Your task to perform on an android device: allow cookies in the chrome app Image 0: 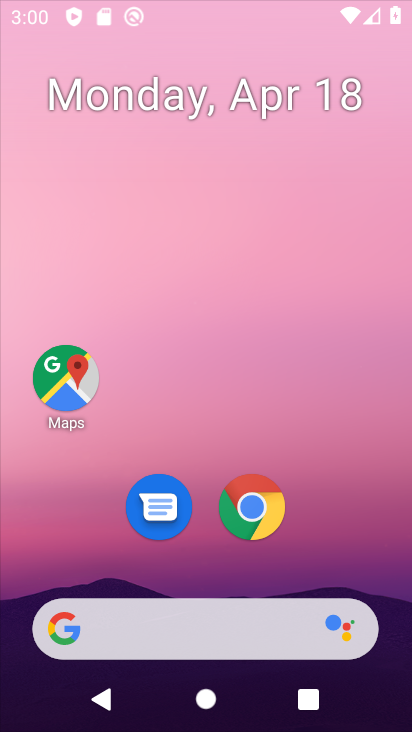
Step 0: drag from (232, 233) to (292, 0)
Your task to perform on an android device: allow cookies in the chrome app Image 1: 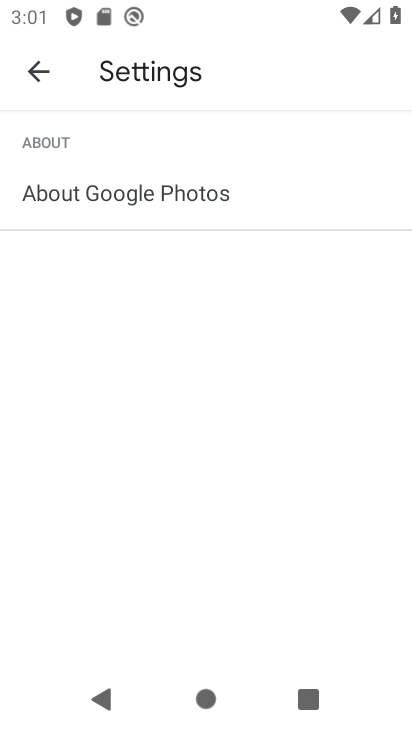
Step 1: press home button
Your task to perform on an android device: allow cookies in the chrome app Image 2: 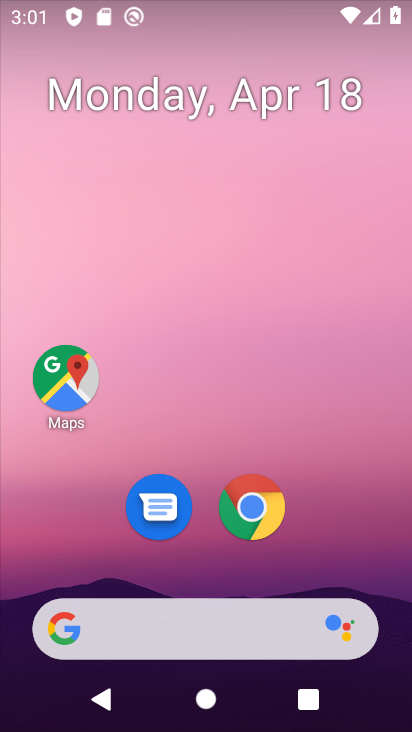
Step 2: drag from (200, 481) to (235, 41)
Your task to perform on an android device: allow cookies in the chrome app Image 3: 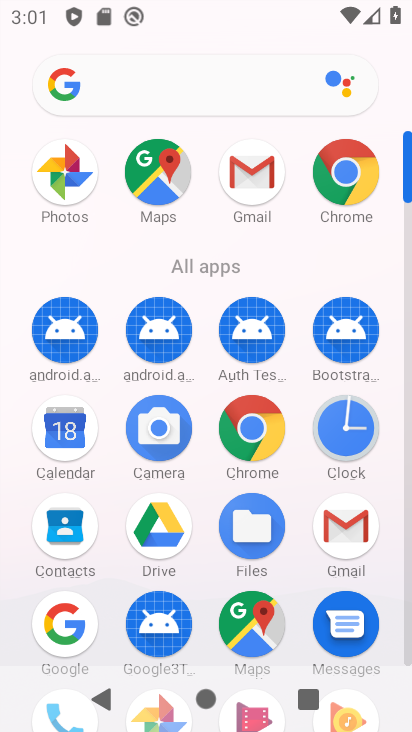
Step 3: click (347, 428)
Your task to perform on an android device: allow cookies in the chrome app Image 4: 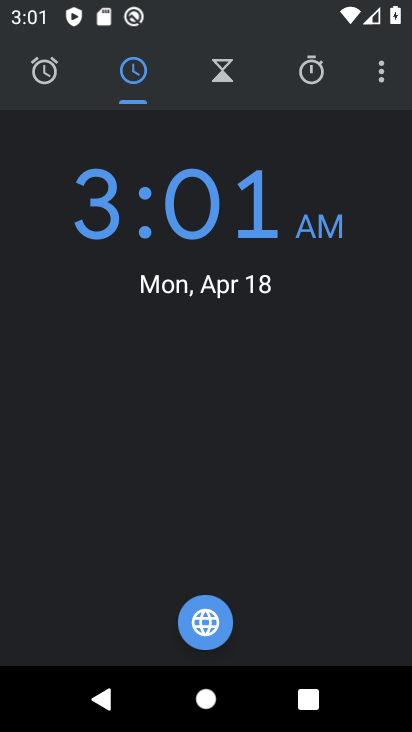
Step 4: click (45, 90)
Your task to perform on an android device: allow cookies in the chrome app Image 5: 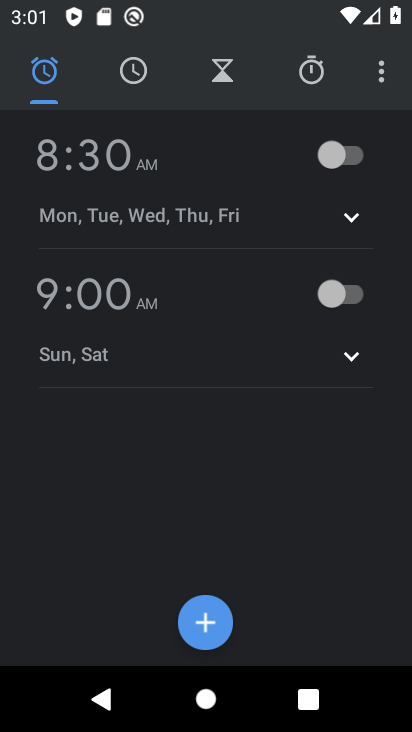
Step 5: click (199, 623)
Your task to perform on an android device: allow cookies in the chrome app Image 6: 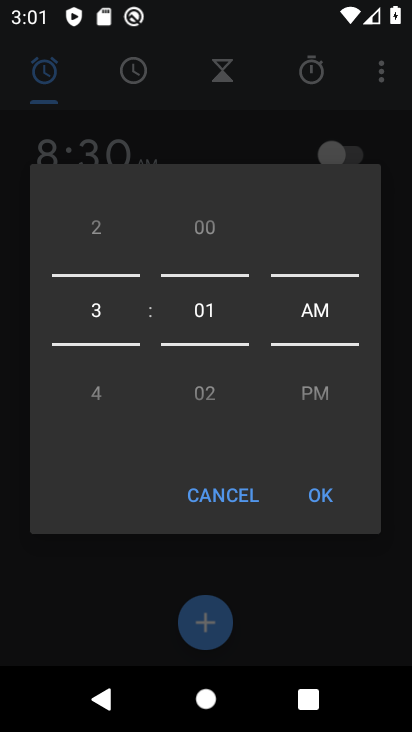
Step 6: click (100, 398)
Your task to perform on an android device: allow cookies in the chrome app Image 7: 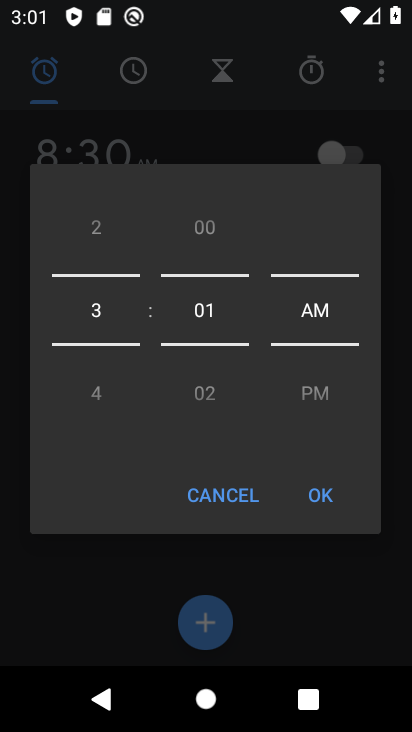
Step 7: drag from (99, 332) to (105, 139)
Your task to perform on an android device: allow cookies in the chrome app Image 8: 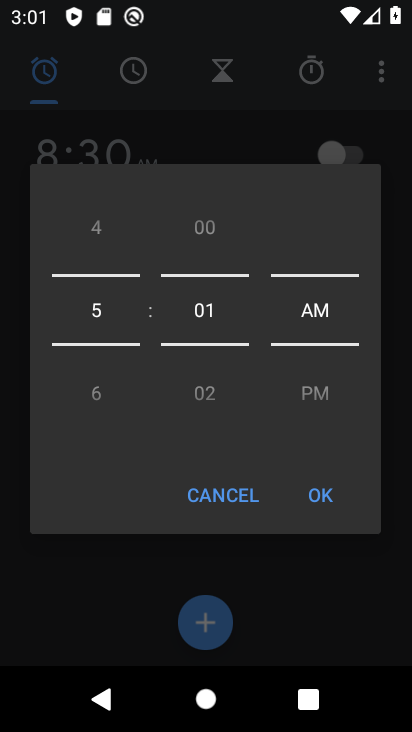
Step 8: click (317, 503)
Your task to perform on an android device: allow cookies in the chrome app Image 9: 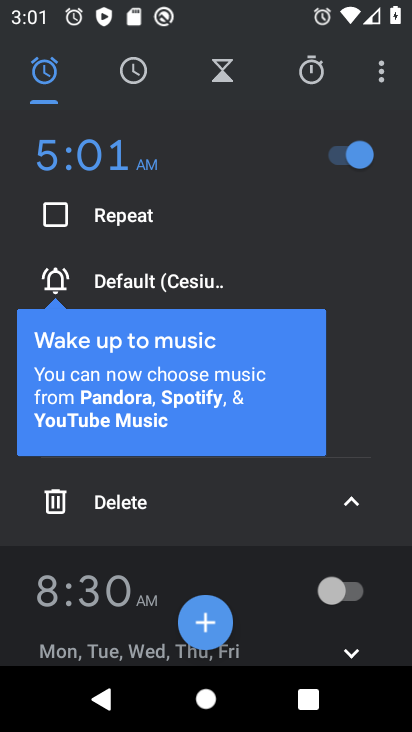
Step 9: task complete